Your task to perform on an android device: Do I have any events tomorrow? Image 0: 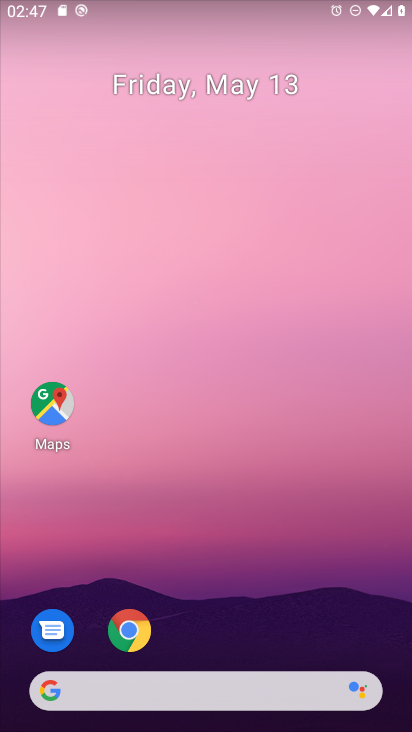
Step 0: drag from (262, 721) to (292, 238)
Your task to perform on an android device: Do I have any events tomorrow? Image 1: 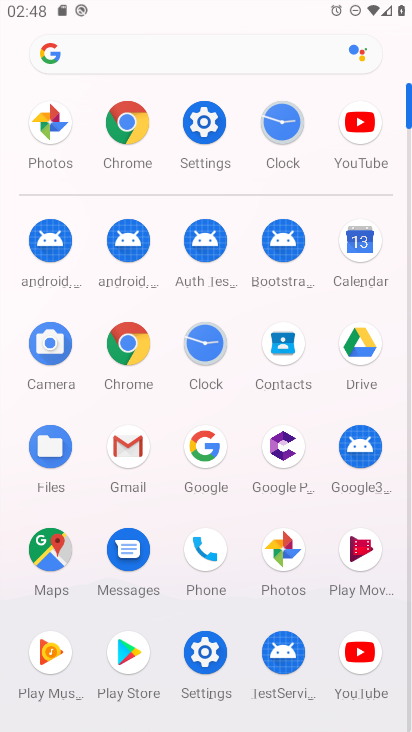
Step 1: click (344, 251)
Your task to perform on an android device: Do I have any events tomorrow? Image 2: 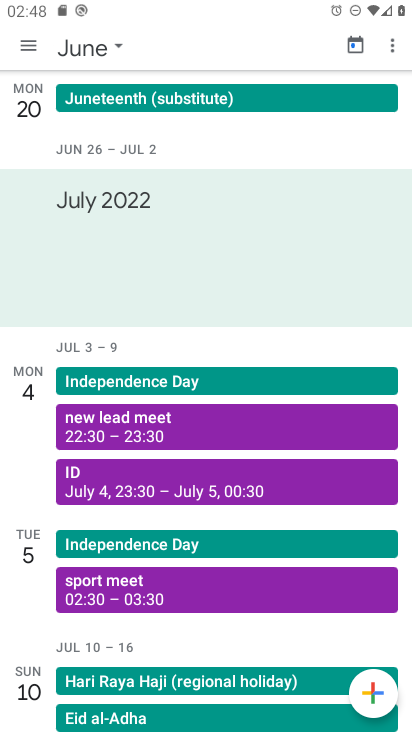
Step 2: click (34, 54)
Your task to perform on an android device: Do I have any events tomorrow? Image 3: 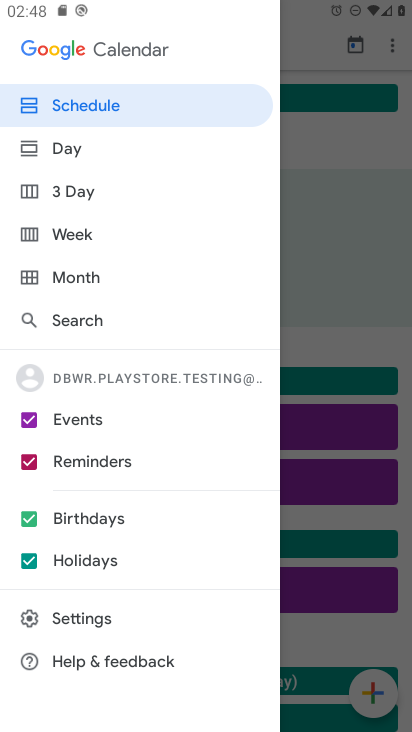
Step 3: click (92, 283)
Your task to perform on an android device: Do I have any events tomorrow? Image 4: 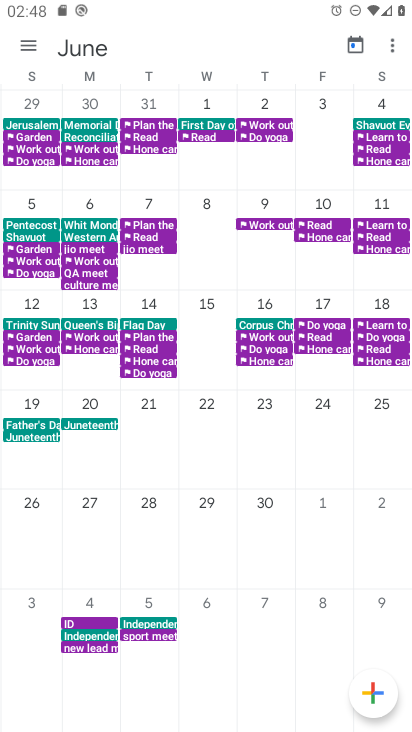
Step 4: drag from (59, 389) to (403, 286)
Your task to perform on an android device: Do I have any events tomorrow? Image 5: 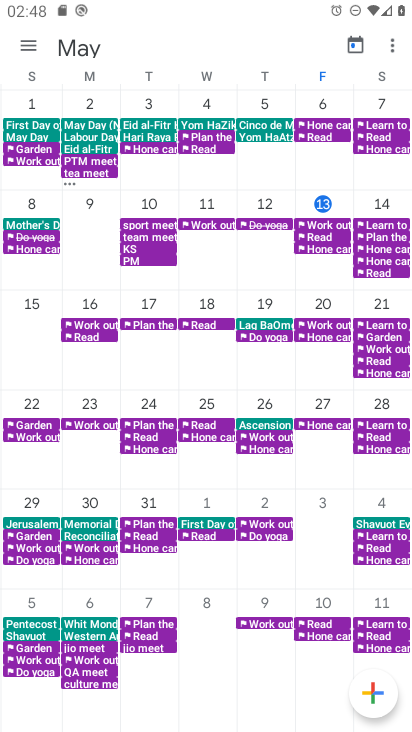
Step 5: click (323, 205)
Your task to perform on an android device: Do I have any events tomorrow? Image 6: 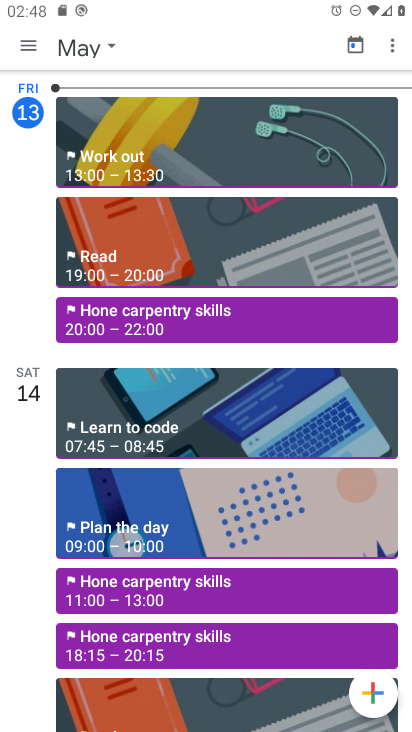
Step 6: task complete